Your task to perform on an android device: turn on javascript in the chrome app Image 0: 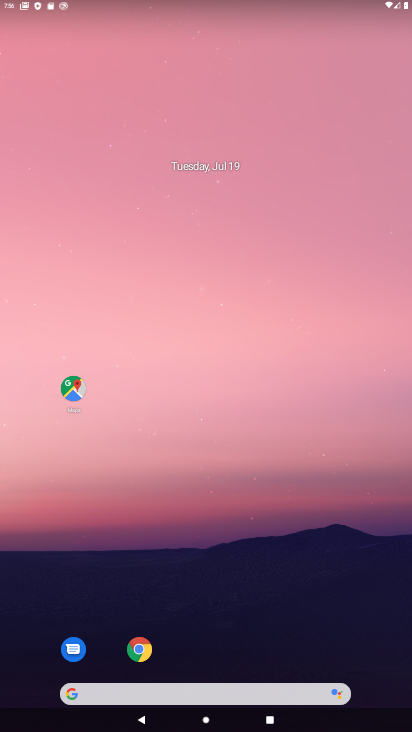
Step 0: click (128, 644)
Your task to perform on an android device: turn on javascript in the chrome app Image 1: 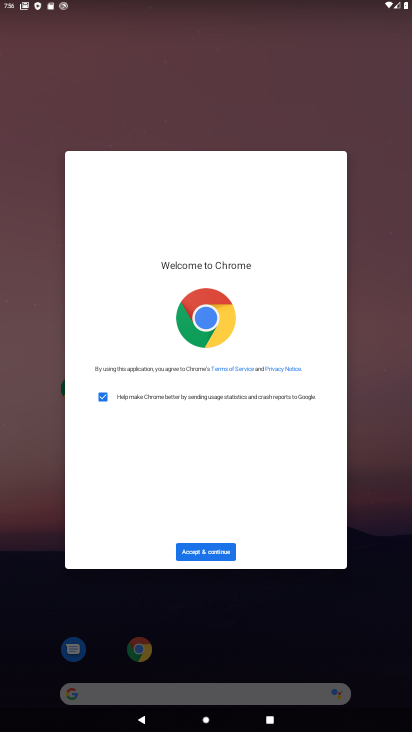
Step 1: click (200, 550)
Your task to perform on an android device: turn on javascript in the chrome app Image 2: 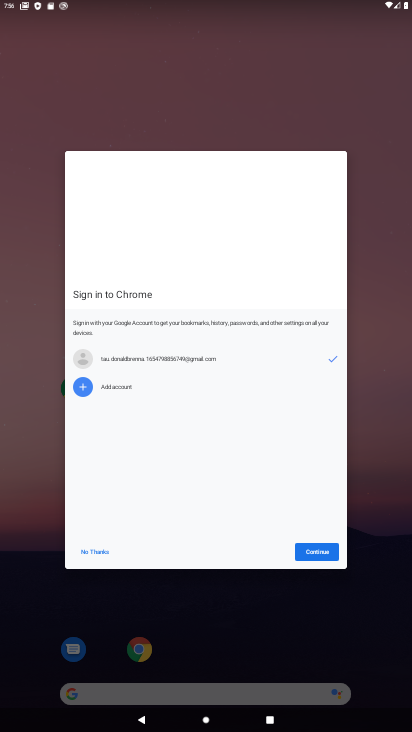
Step 2: click (302, 550)
Your task to perform on an android device: turn on javascript in the chrome app Image 3: 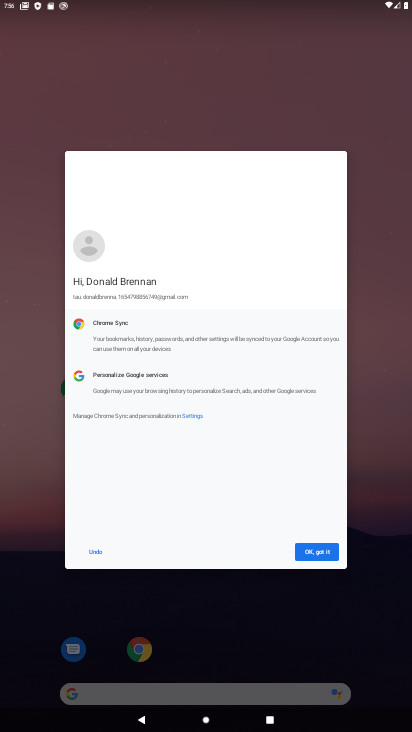
Step 3: click (302, 550)
Your task to perform on an android device: turn on javascript in the chrome app Image 4: 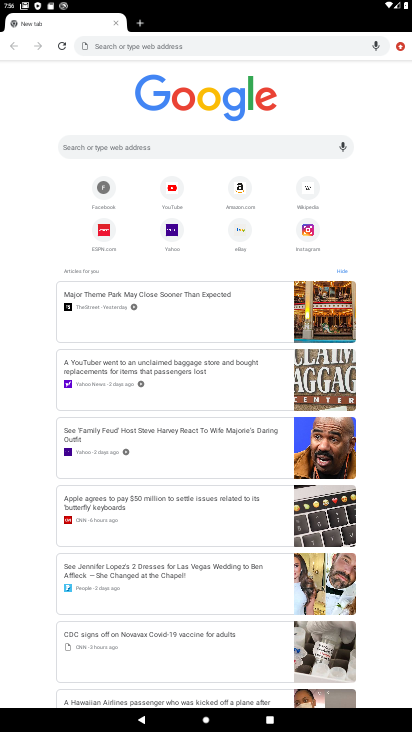
Step 4: click (397, 45)
Your task to perform on an android device: turn on javascript in the chrome app Image 5: 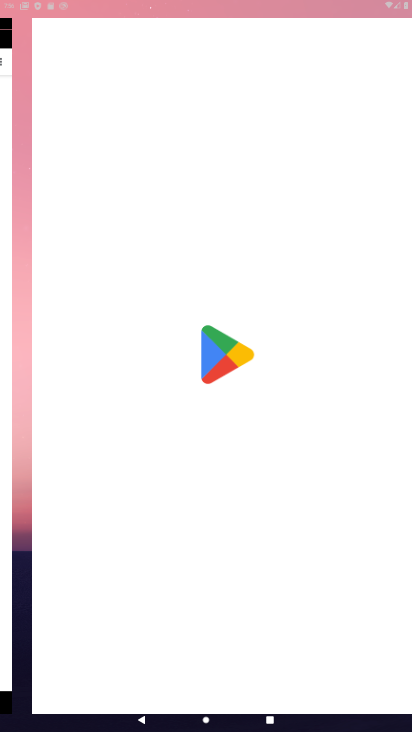
Step 5: click (397, 45)
Your task to perform on an android device: turn on javascript in the chrome app Image 6: 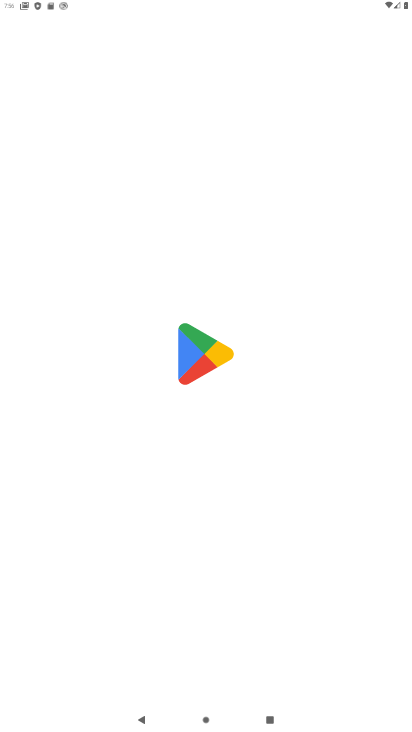
Step 6: press back button
Your task to perform on an android device: turn on javascript in the chrome app Image 7: 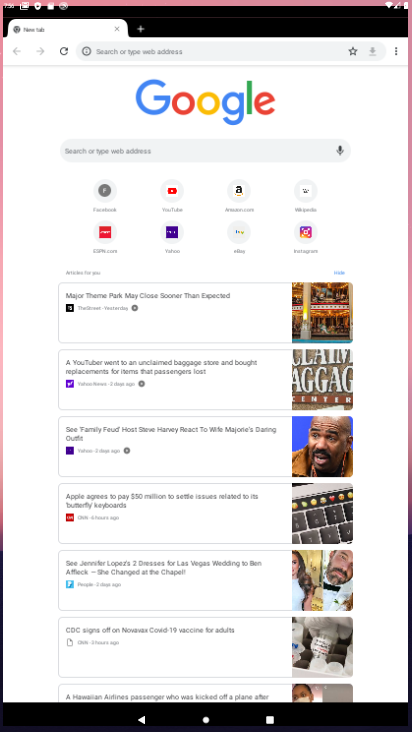
Step 7: press back button
Your task to perform on an android device: turn on javascript in the chrome app Image 8: 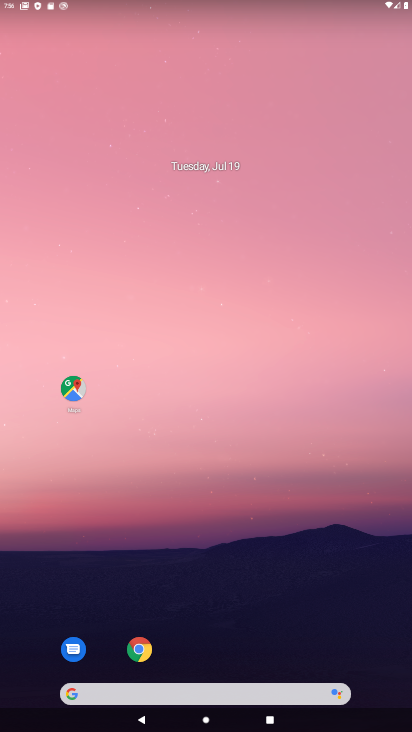
Step 8: click (127, 646)
Your task to perform on an android device: turn on javascript in the chrome app Image 9: 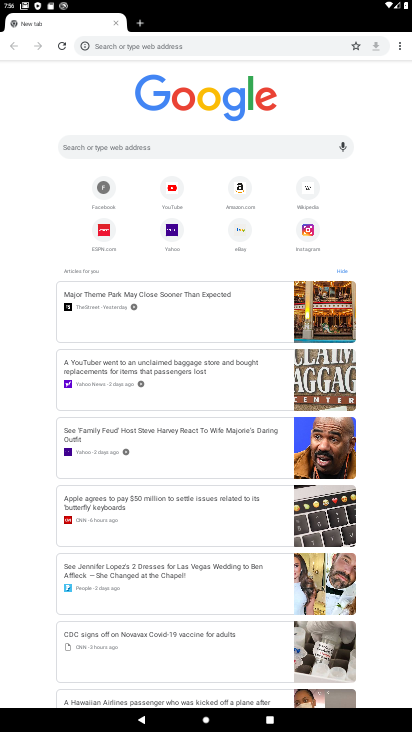
Step 9: drag from (395, 44) to (310, 239)
Your task to perform on an android device: turn on javascript in the chrome app Image 10: 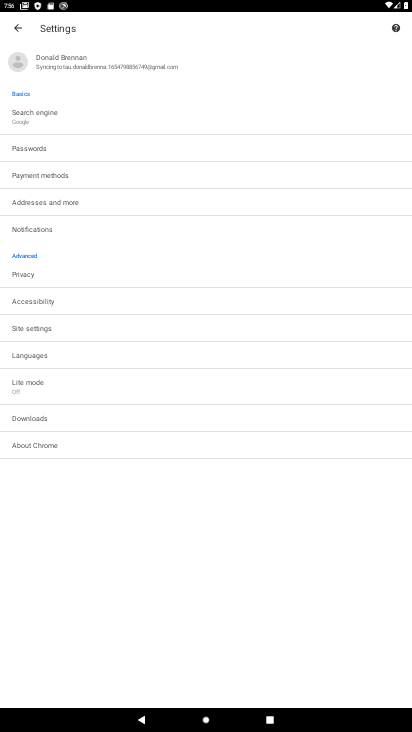
Step 10: click (73, 331)
Your task to perform on an android device: turn on javascript in the chrome app Image 11: 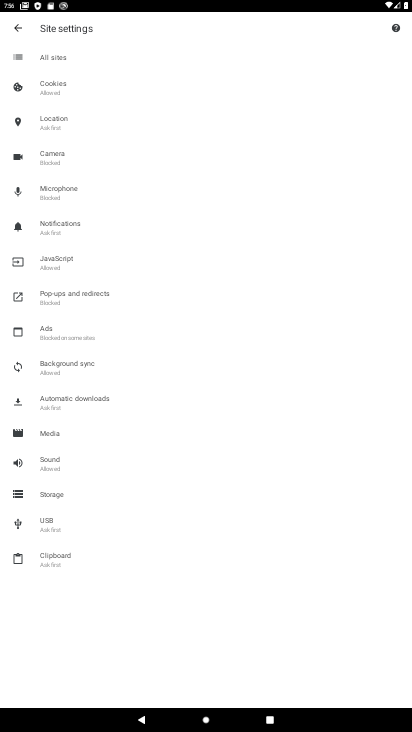
Step 11: click (69, 267)
Your task to perform on an android device: turn on javascript in the chrome app Image 12: 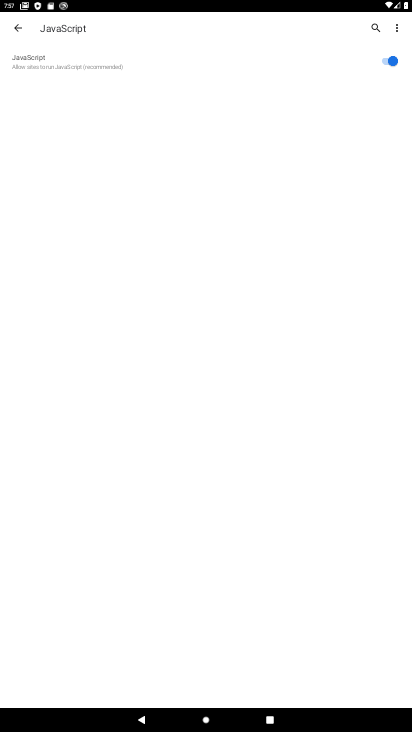
Step 12: task complete